Your task to perform on an android device: Go to Amazon Image 0: 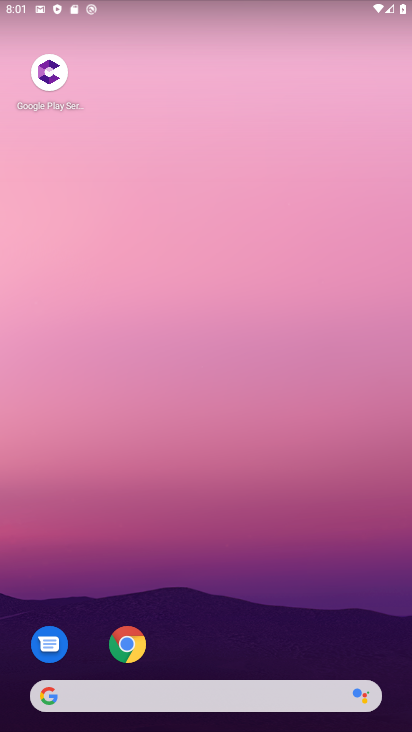
Step 0: click (124, 644)
Your task to perform on an android device: Go to Amazon Image 1: 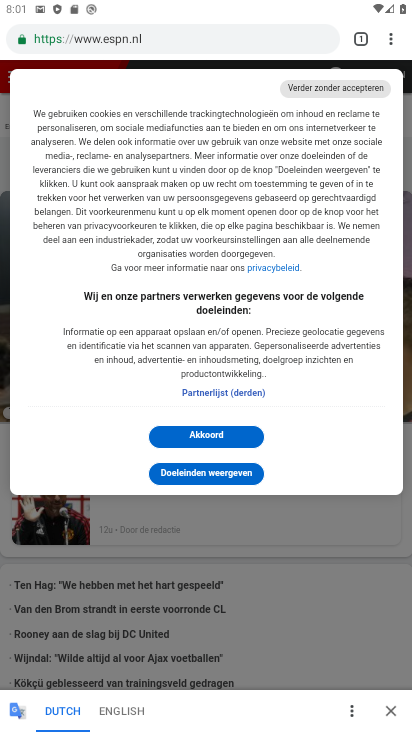
Step 1: click (248, 45)
Your task to perform on an android device: Go to Amazon Image 2: 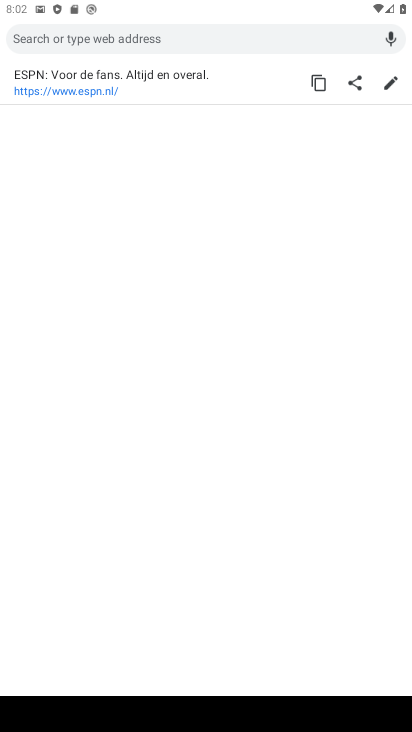
Step 2: type "Amazon"
Your task to perform on an android device: Go to Amazon Image 3: 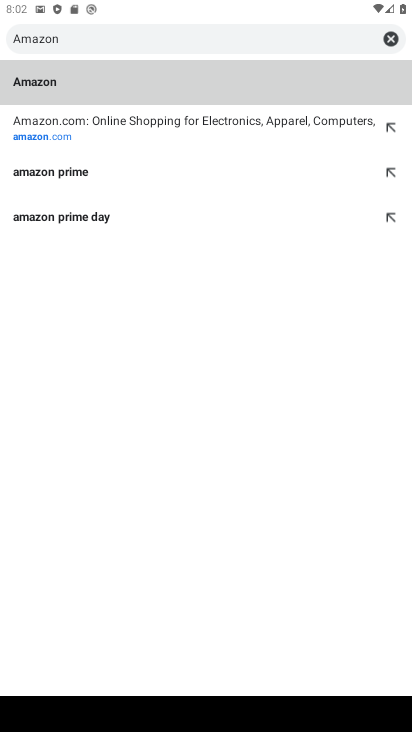
Step 3: click (98, 93)
Your task to perform on an android device: Go to Amazon Image 4: 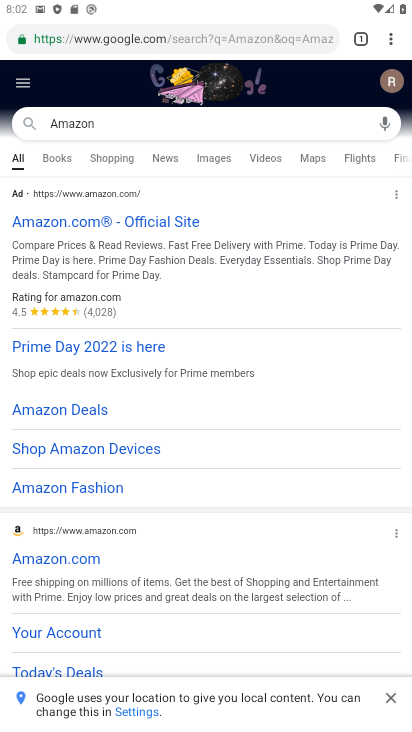
Step 4: click (78, 561)
Your task to perform on an android device: Go to Amazon Image 5: 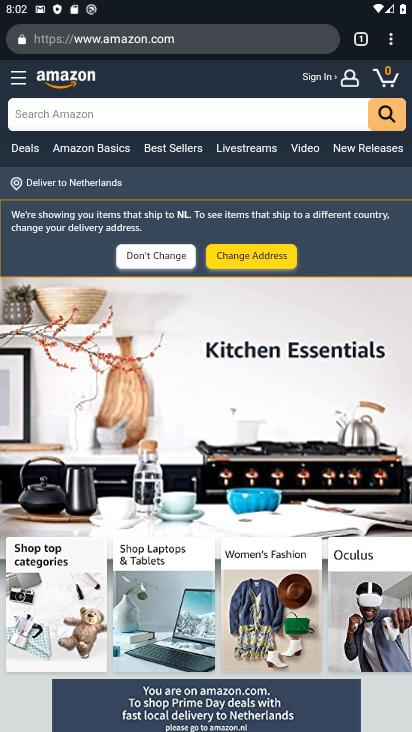
Step 5: task complete